Your task to perform on an android device: Go to Android settings Image 0: 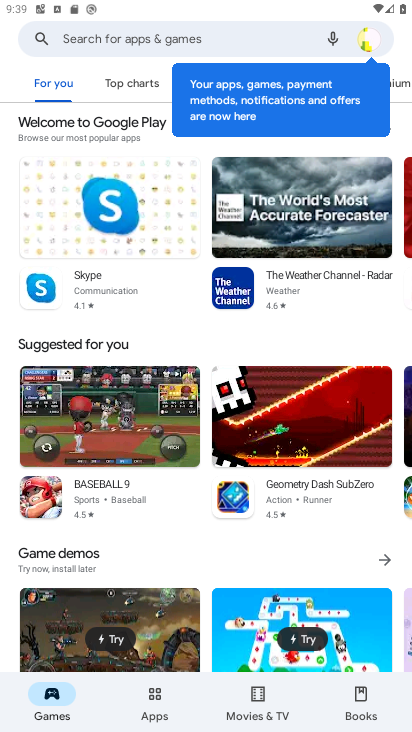
Step 0: press home button
Your task to perform on an android device: Go to Android settings Image 1: 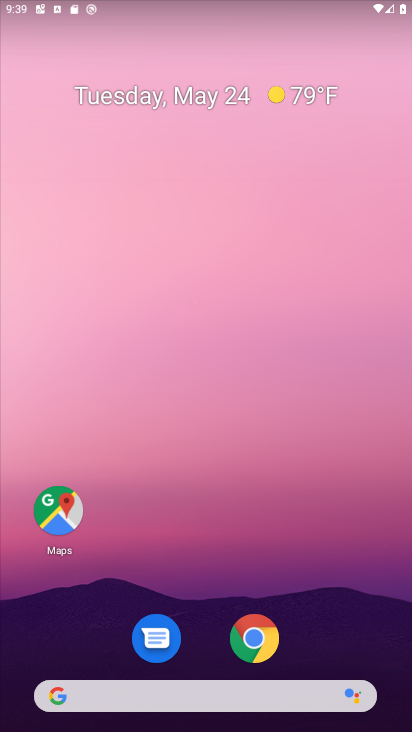
Step 1: drag from (203, 725) to (240, 162)
Your task to perform on an android device: Go to Android settings Image 2: 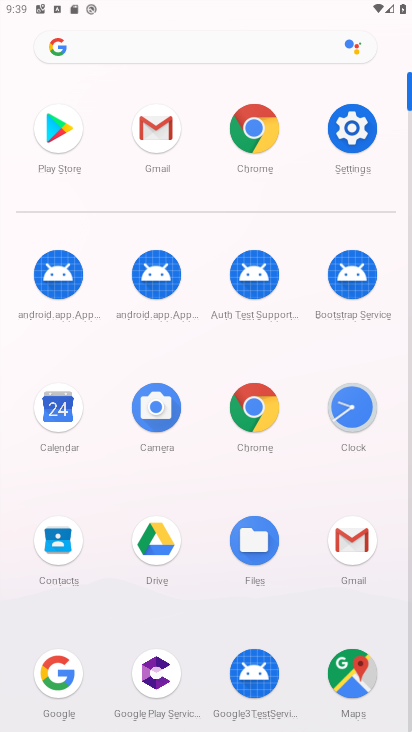
Step 2: click (359, 126)
Your task to perform on an android device: Go to Android settings Image 3: 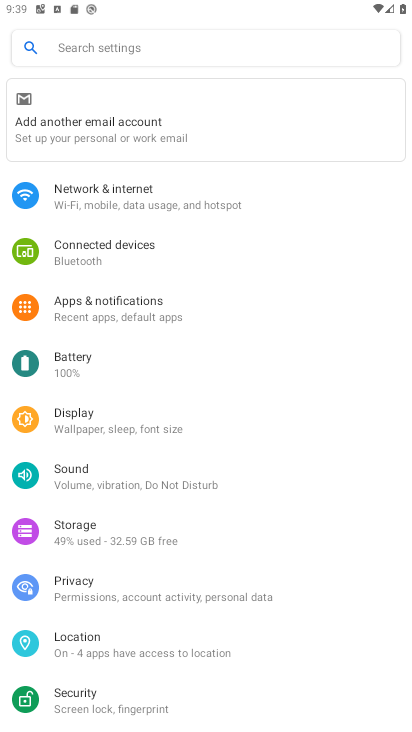
Step 3: drag from (319, 710) to (305, 10)
Your task to perform on an android device: Go to Android settings Image 4: 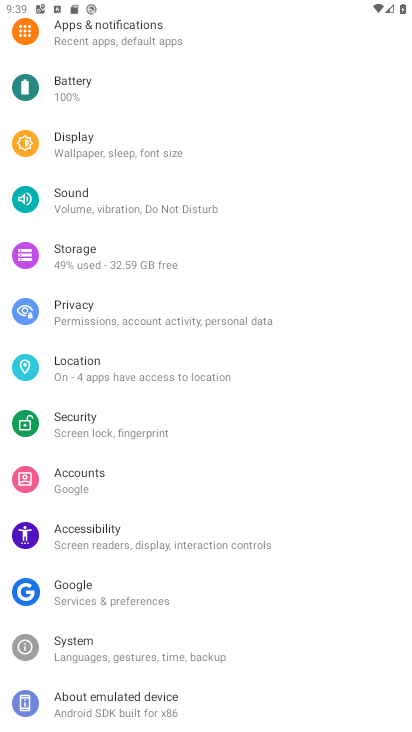
Step 4: click (154, 692)
Your task to perform on an android device: Go to Android settings Image 5: 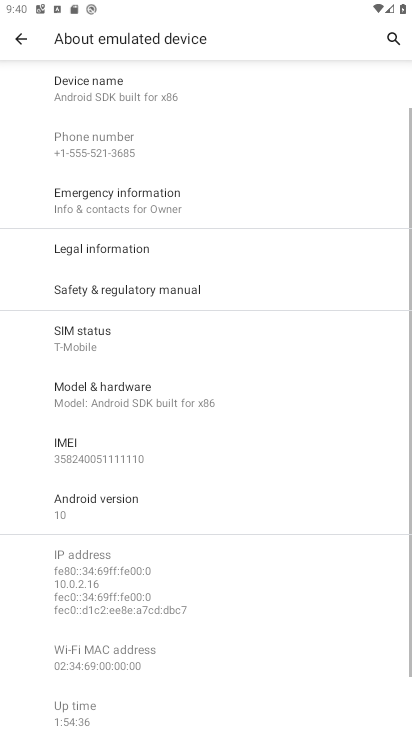
Step 5: task complete